Your task to perform on an android device: check out phone information Image 0: 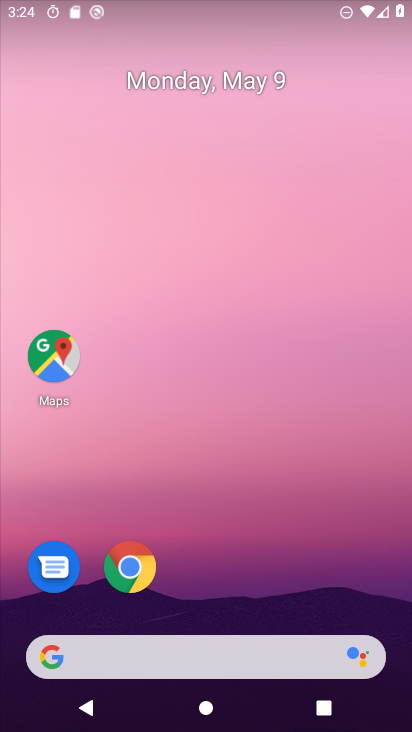
Step 0: drag from (251, 691) to (224, 51)
Your task to perform on an android device: check out phone information Image 1: 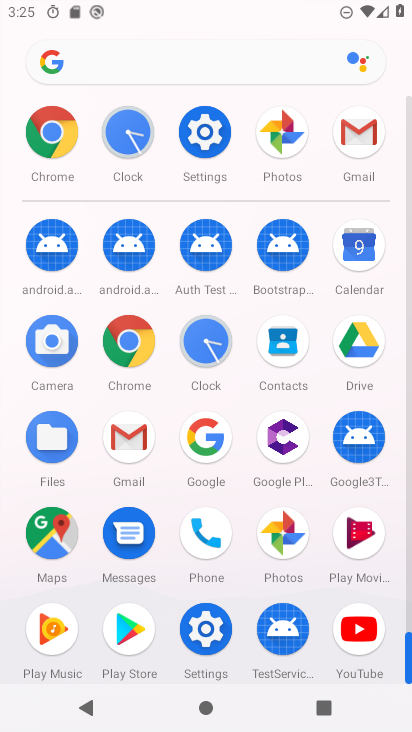
Step 1: click (203, 134)
Your task to perform on an android device: check out phone information Image 2: 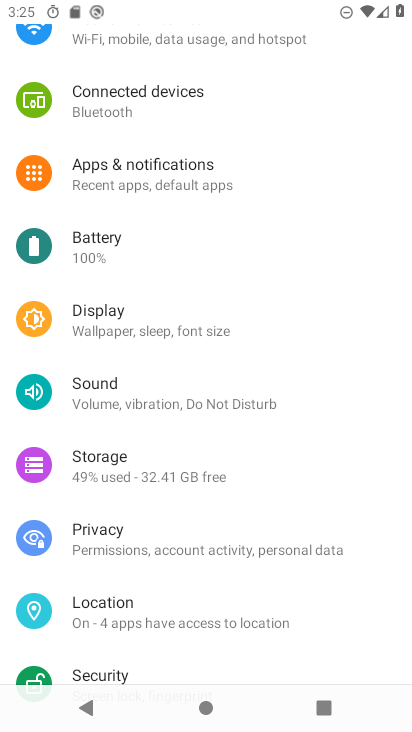
Step 2: drag from (239, 569) to (244, 96)
Your task to perform on an android device: check out phone information Image 3: 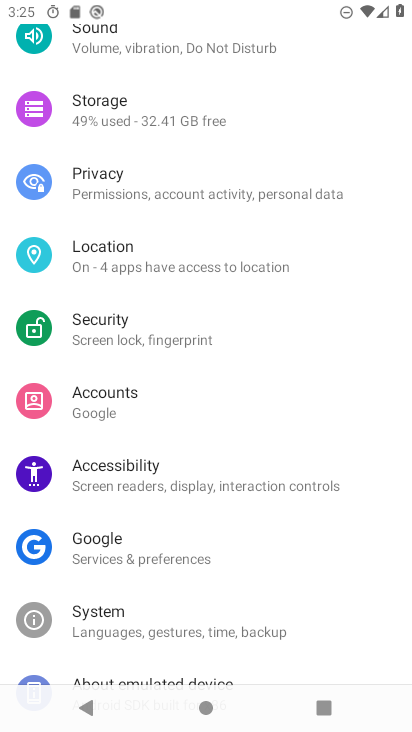
Step 3: drag from (236, 344) to (215, 181)
Your task to perform on an android device: check out phone information Image 4: 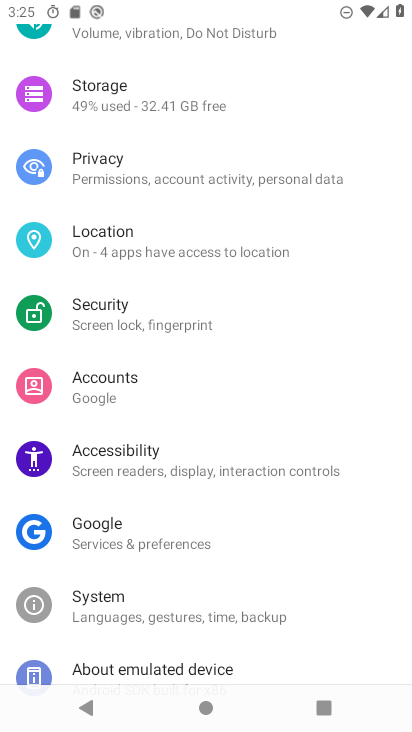
Step 4: click (160, 665)
Your task to perform on an android device: check out phone information Image 5: 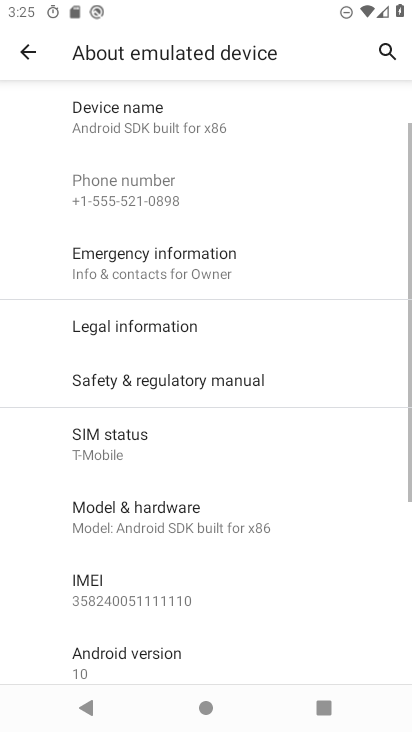
Step 5: drag from (194, 561) to (200, 220)
Your task to perform on an android device: check out phone information Image 6: 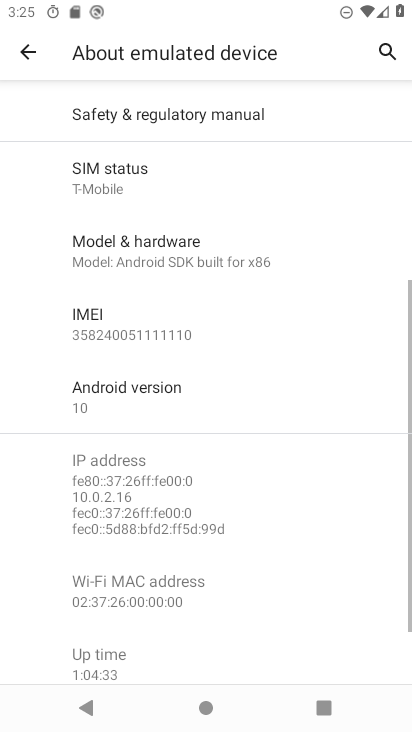
Step 6: drag from (261, 599) to (255, 213)
Your task to perform on an android device: check out phone information Image 7: 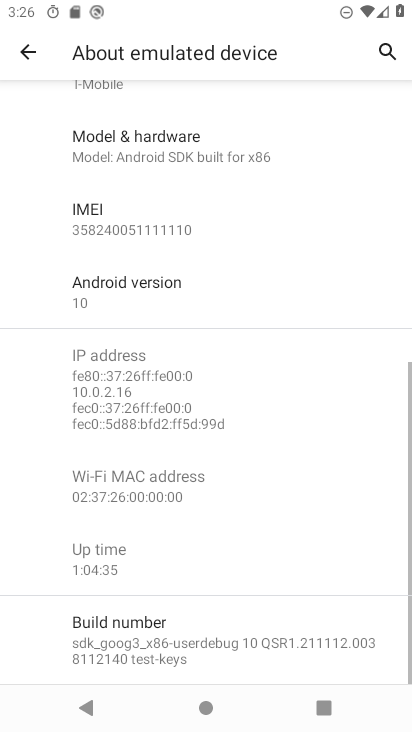
Step 7: click (158, 152)
Your task to perform on an android device: check out phone information Image 8: 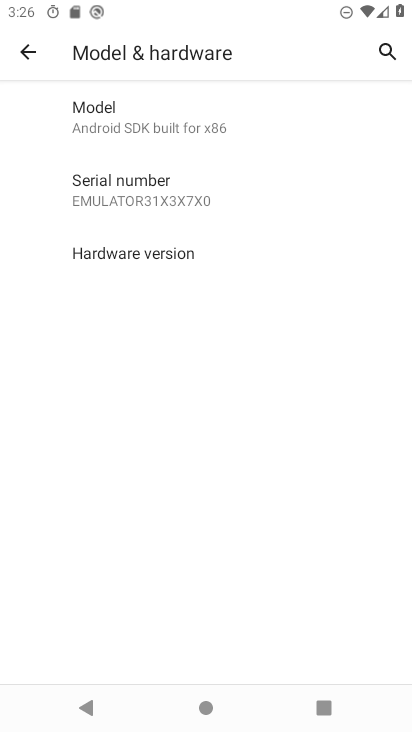
Step 8: task complete